Your task to perform on an android device: Look up the best rated gaming chairs on Target. Image 0: 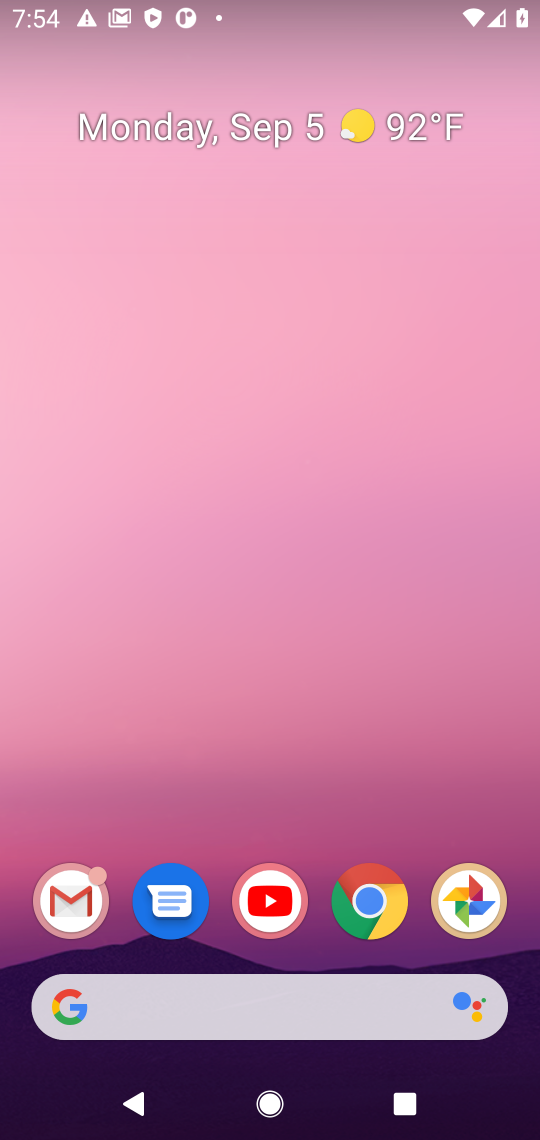
Step 0: click (377, 923)
Your task to perform on an android device: Look up the best rated gaming chairs on Target. Image 1: 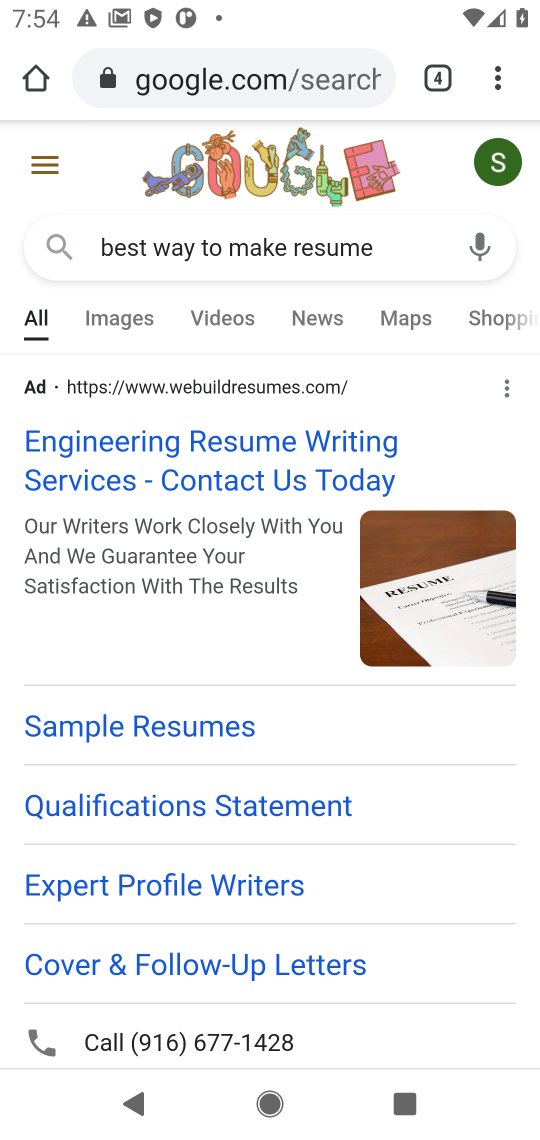
Step 1: click (327, 106)
Your task to perform on an android device: Look up the best rated gaming chairs on Target. Image 2: 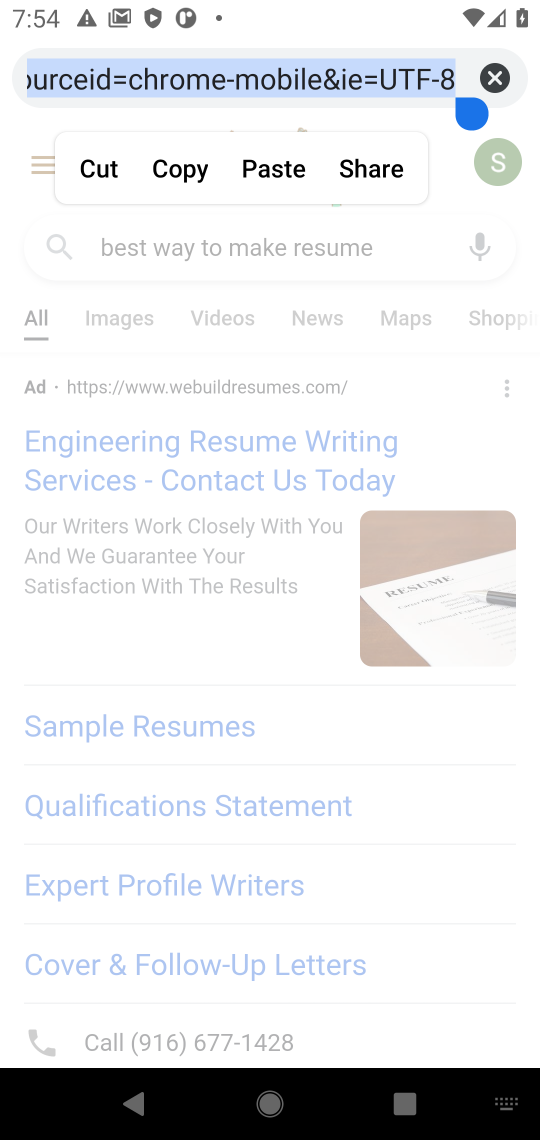
Step 2: type "target"
Your task to perform on an android device: Look up the best rated gaming chairs on Target. Image 3: 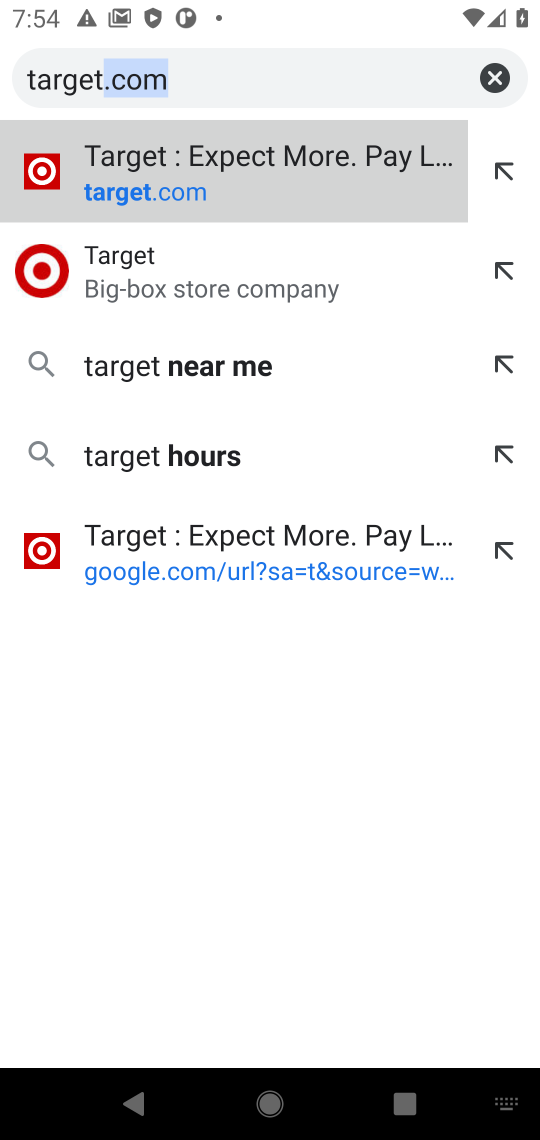
Step 3: click (176, 255)
Your task to perform on an android device: Look up the best rated gaming chairs on Target. Image 4: 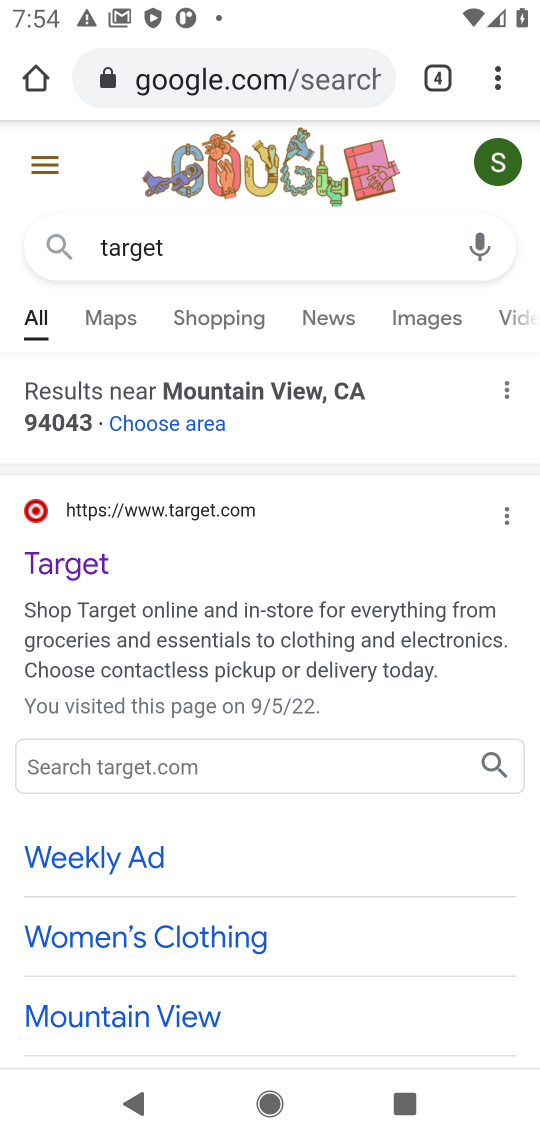
Step 4: click (55, 574)
Your task to perform on an android device: Look up the best rated gaming chairs on Target. Image 5: 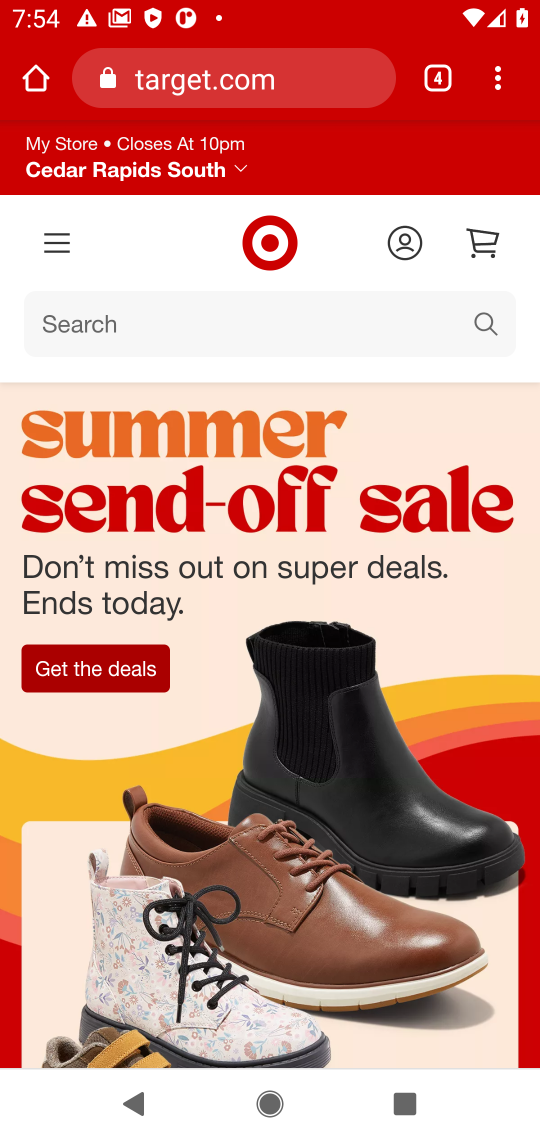
Step 5: click (234, 326)
Your task to perform on an android device: Look up the best rated gaming chairs on Target. Image 6: 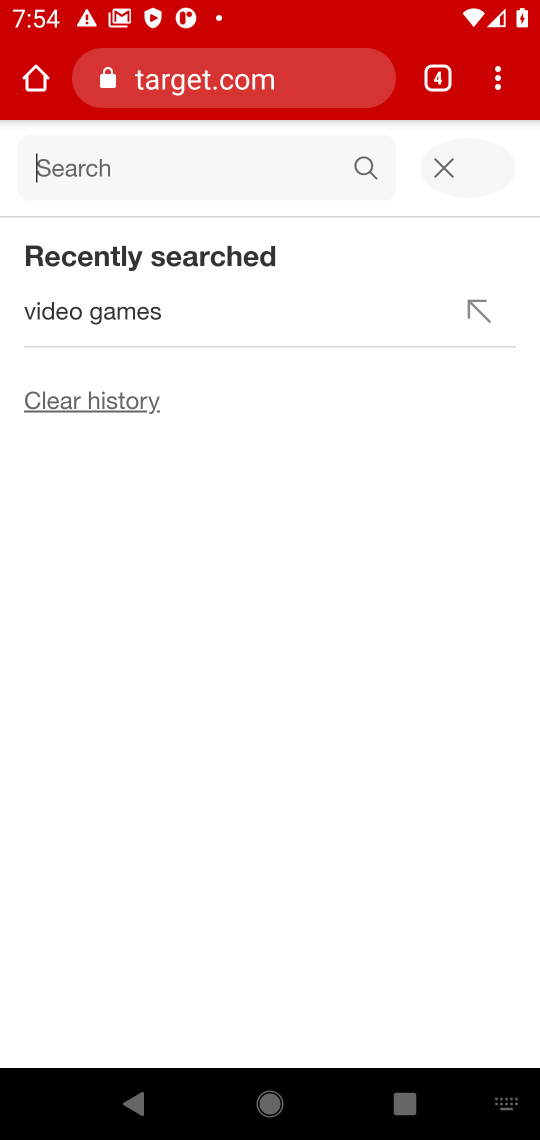
Step 6: type "g"
Your task to perform on an android device: Look up the best rated gaming chairs on Target. Image 7: 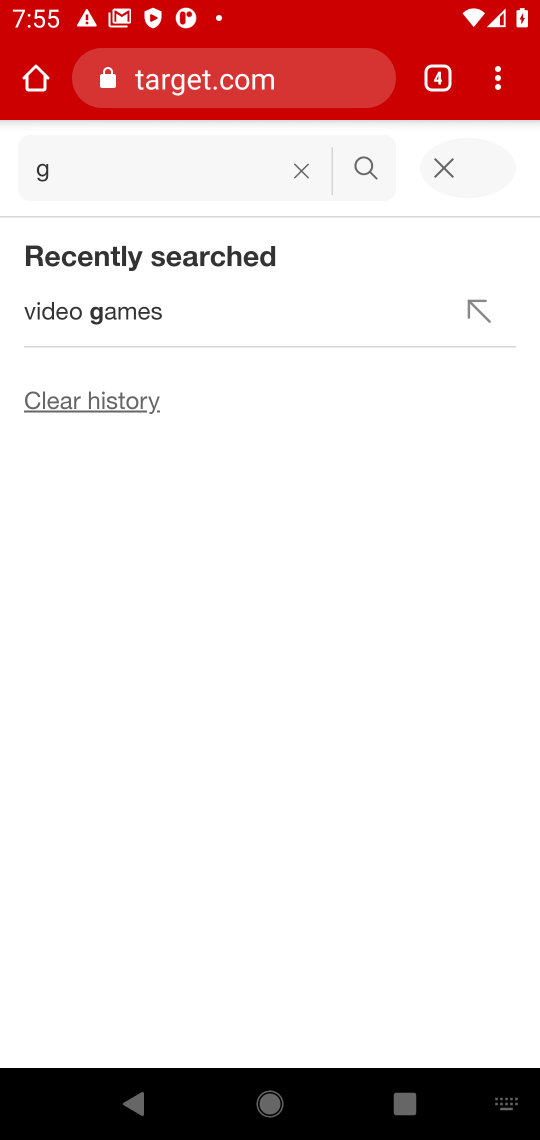
Step 7: click (143, 162)
Your task to perform on an android device: Look up the best rated gaming chairs on Target. Image 8: 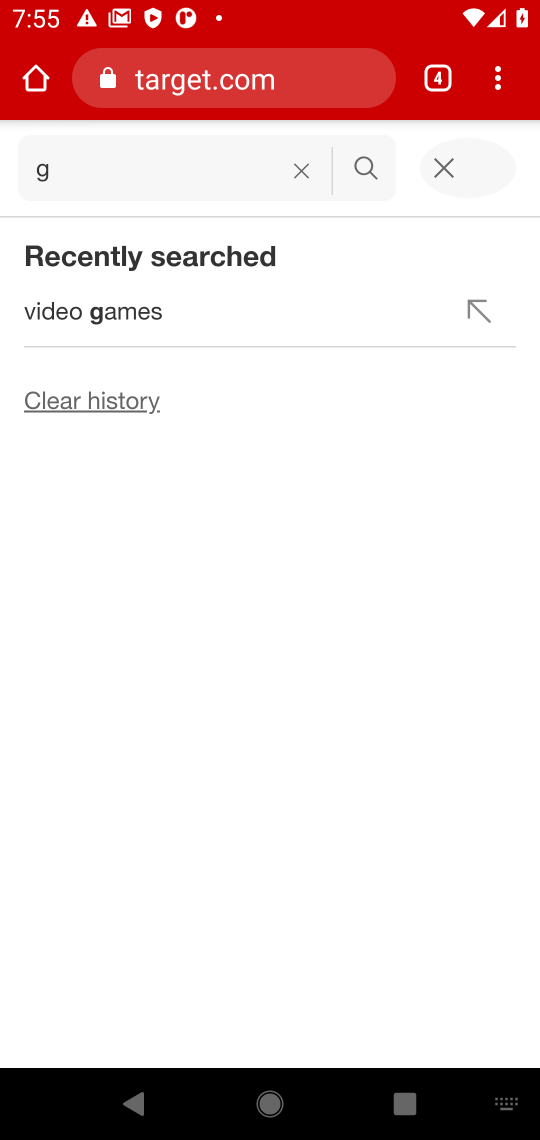
Step 8: click (309, 174)
Your task to perform on an android device: Look up the best rated gaming chairs on Target. Image 9: 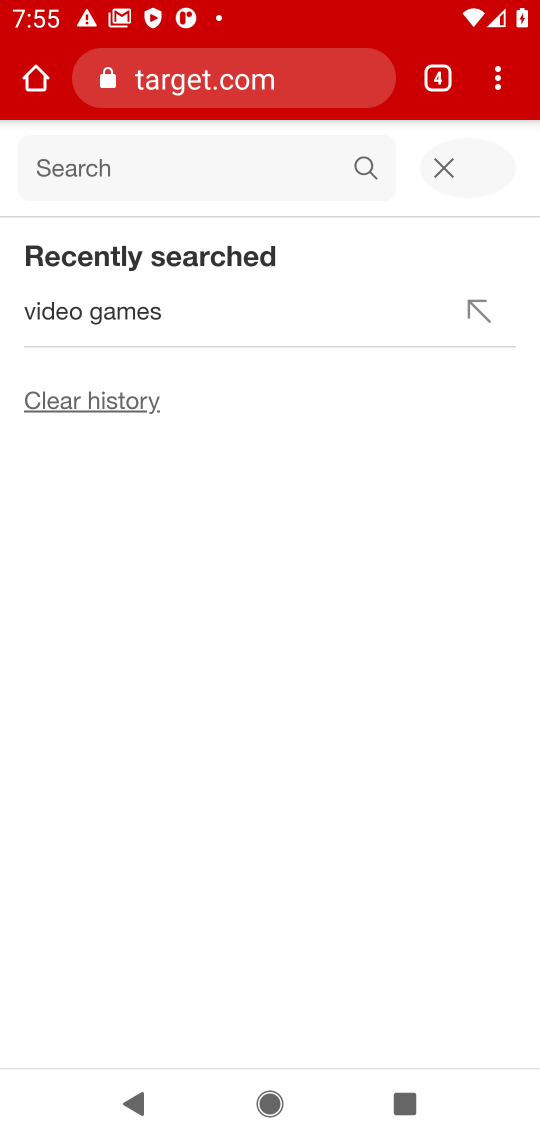
Step 9: type "gaming chair"
Your task to perform on an android device: Look up the best rated gaming chairs on Target. Image 10: 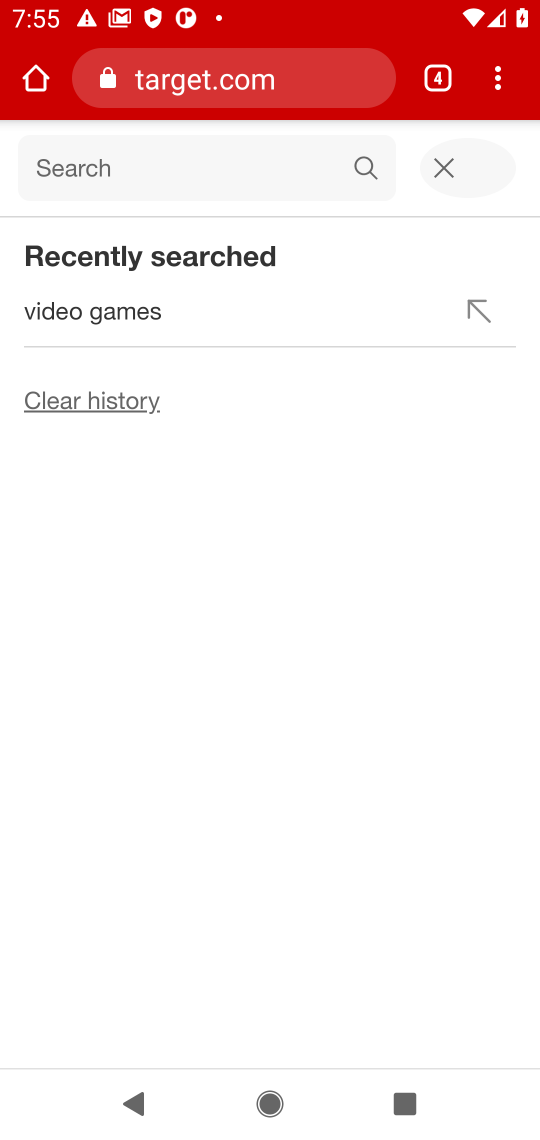
Step 10: click (27, 148)
Your task to perform on an android device: Look up the best rated gaming chairs on Target. Image 11: 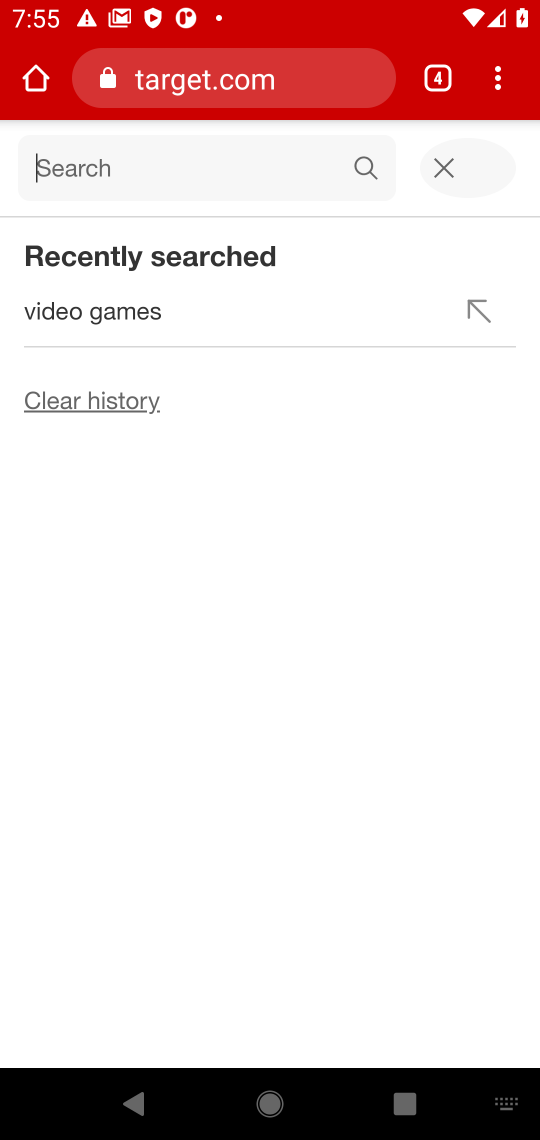
Step 11: type "gaming chair"
Your task to perform on an android device: Look up the best rated gaming chairs on Target. Image 12: 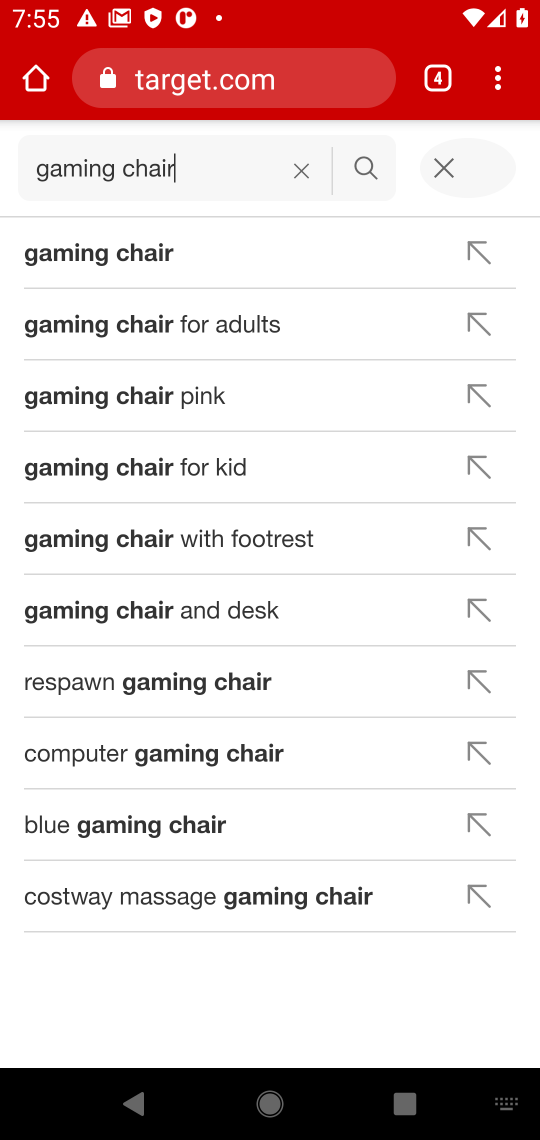
Step 12: click (105, 161)
Your task to perform on an android device: Look up the best rated gaming chairs on Target. Image 13: 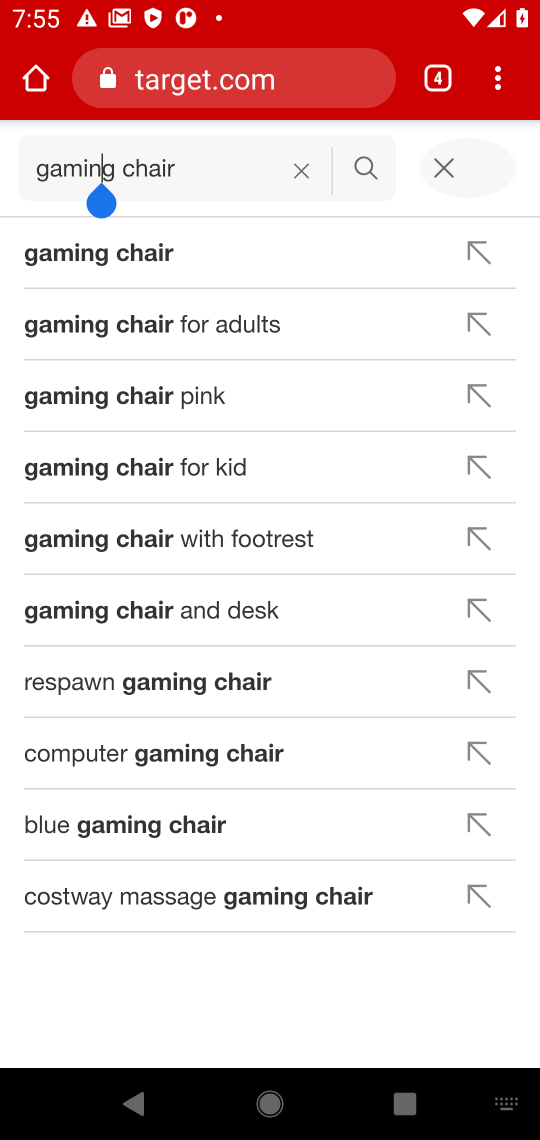
Step 13: click (198, 236)
Your task to perform on an android device: Look up the best rated gaming chairs on Target. Image 14: 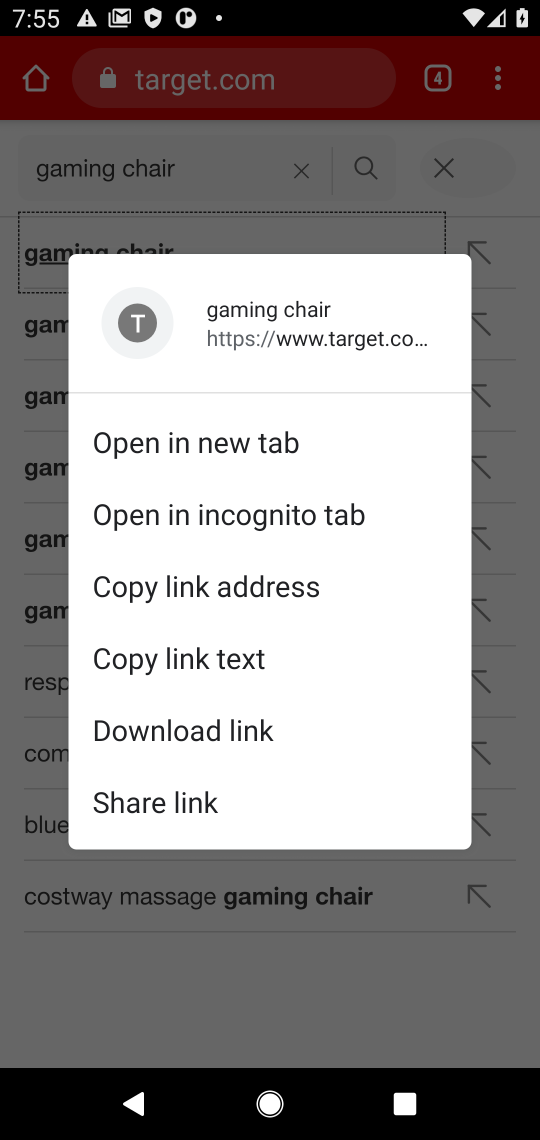
Step 14: click (202, 200)
Your task to perform on an android device: Look up the best rated gaming chairs on Target. Image 15: 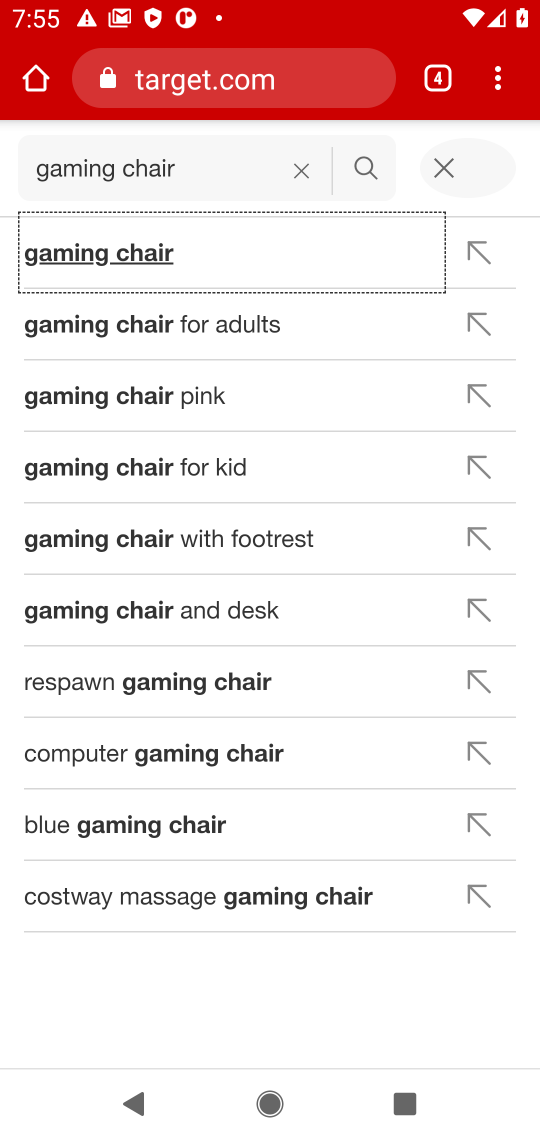
Step 15: click (181, 339)
Your task to perform on an android device: Look up the best rated gaming chairs on Target. Image 16: 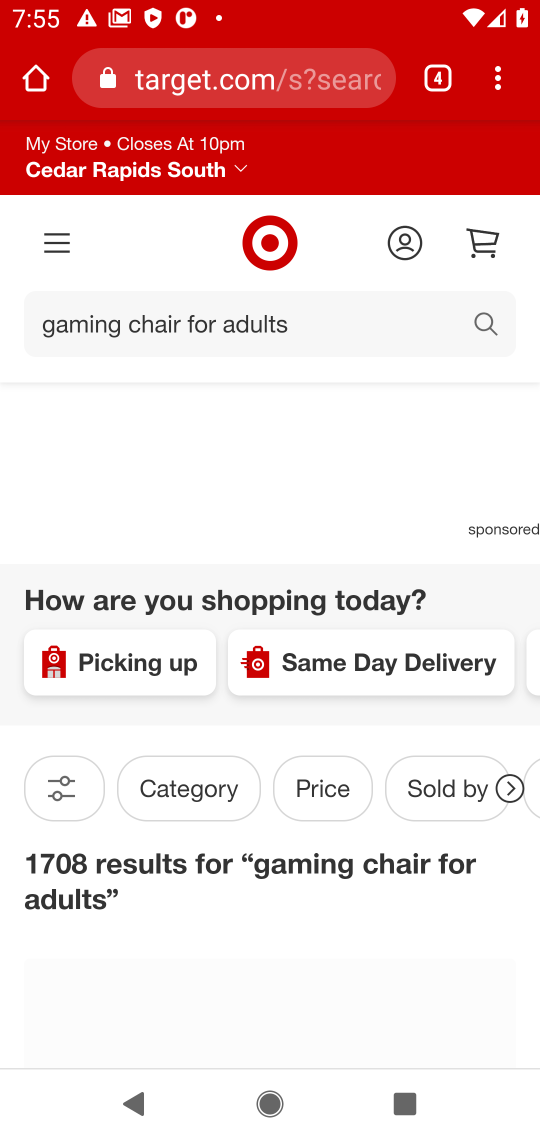
Step 16: task complete